Your task to perform on an android device: Look up the best rated bike on Walmart Image 0: 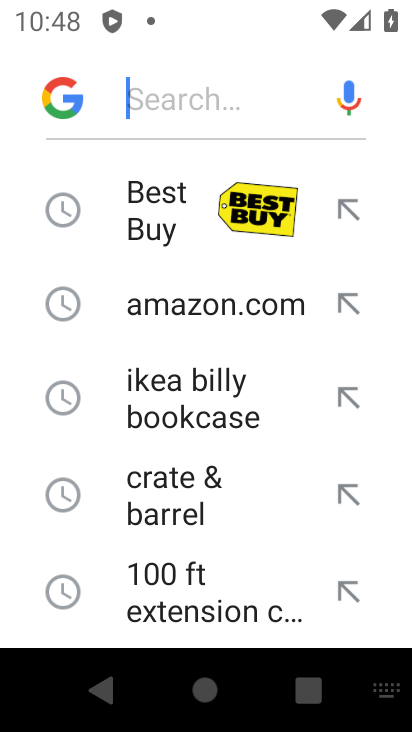
Step 0: press home button
Your task to perform on an android device: Look up the best rated bike on Walmart Image 1: 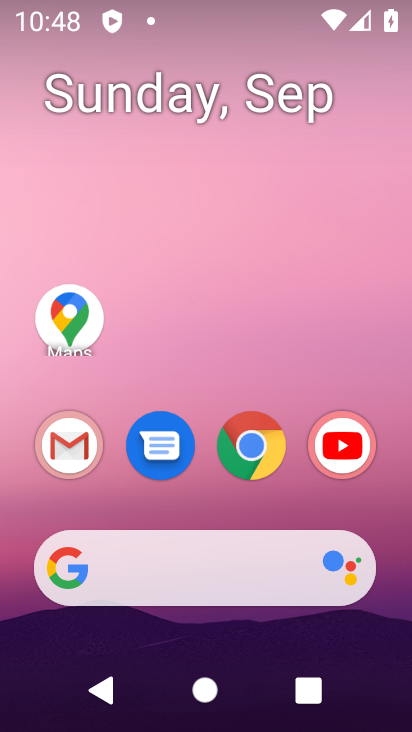
Step 1: drag from (224, 326) to (251, 197)
Your task to perform on an android device: Look up the best rated bike on Walmart Image 2: 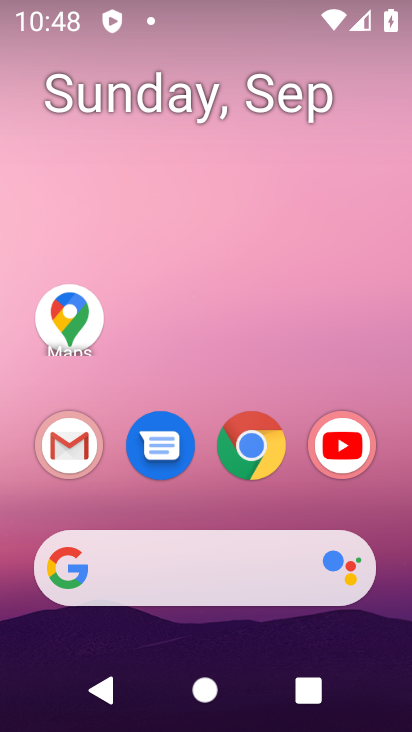
Step 2: drag from (220, 587) to (287, 148)
Your task to perform on an android device: Look up the best rated bike on Walmart Image 3: 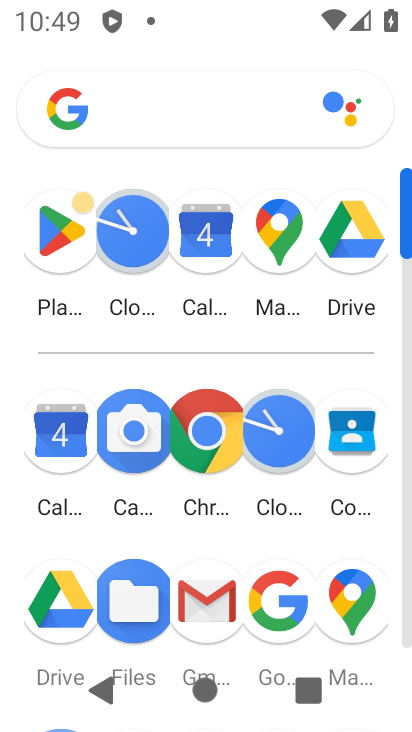
Step 3: click (217, 411)
Your task to perform on an android device: Look up the best rated bike on Walmart Image 4: 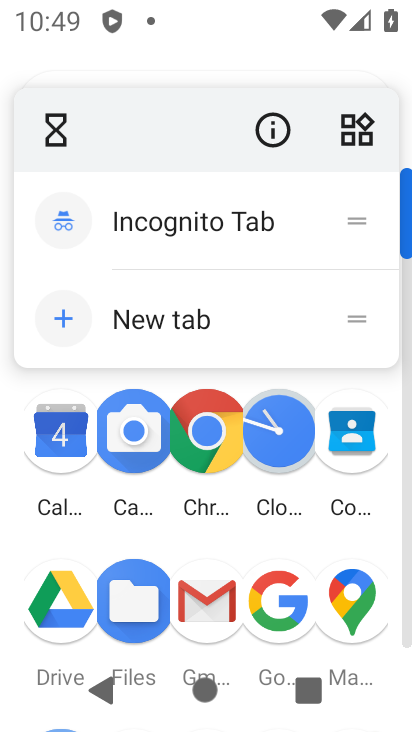
Step 4: click (202, 429)
Your task to perform on an android device: Look up the best rated bike on Walmart Image 5: 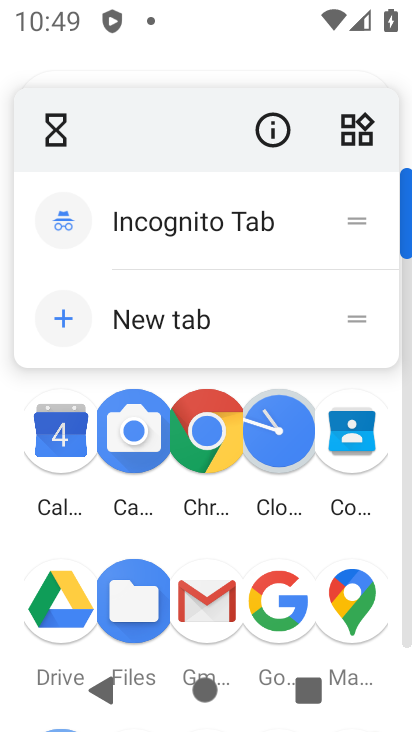
Step 5: click (202, 427)
Your task to perform on an android device: Look up the best rated bike on Walmart Image 6: 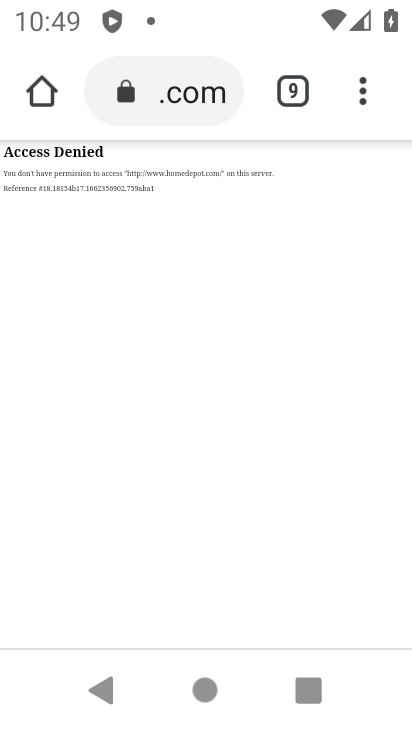
Step 6: click (176, 91)
Your task to perform on an android device: Look up the best rated bike on Walmart Image 7: 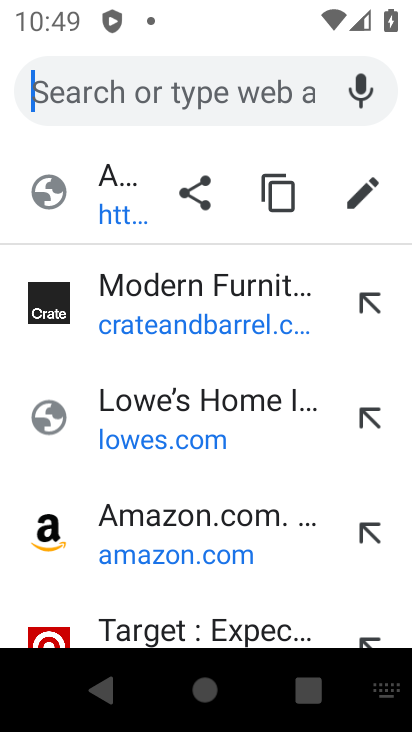
Step 7: click (155, 86)
Your task to perform on an android device: Look up the best rated bike on Walmart Image 8: 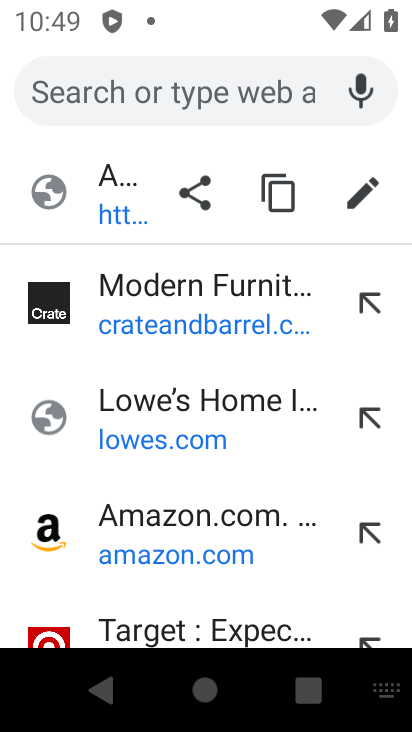
Step 8: type "Walmart"
Your task to perform on an android device: Look up the best rated bike on Walmart Image 9: 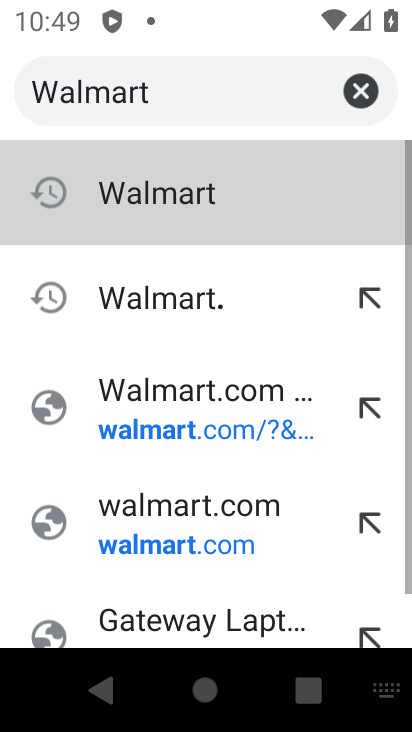
Step 9: press enter
Your task to perform on an android device: Look up the best rated bike on Walmart Image 10: 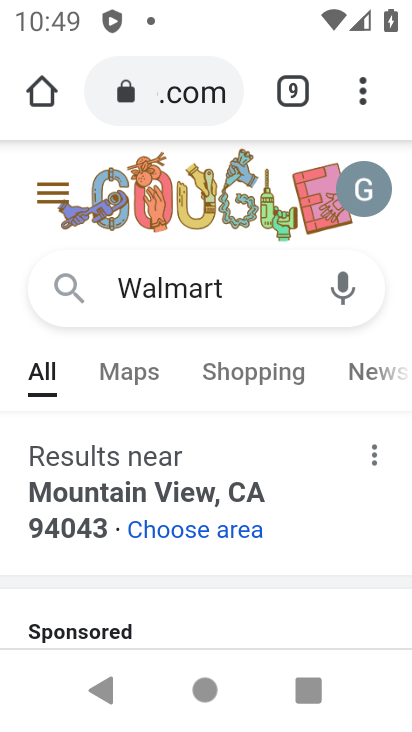
Step 10: click (245, 243)
Your task to perform on an android device: Look up the best rated bike on Walmart Image 11: 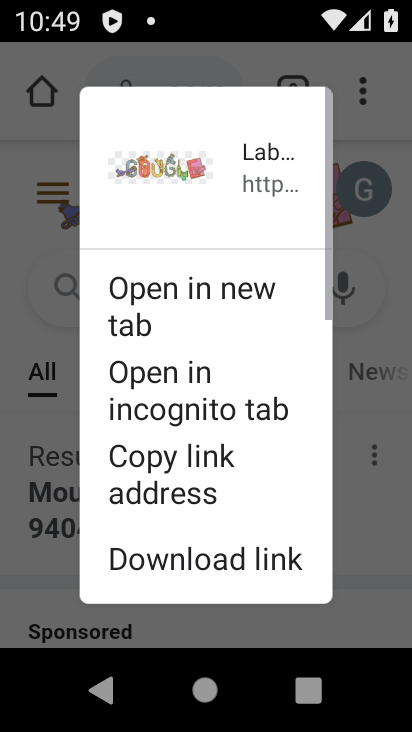
Step 11: drag from (232, 579) to (259, 268)
Your task to perform on an android device: Look up the best rated bike on Walmart Image 12: 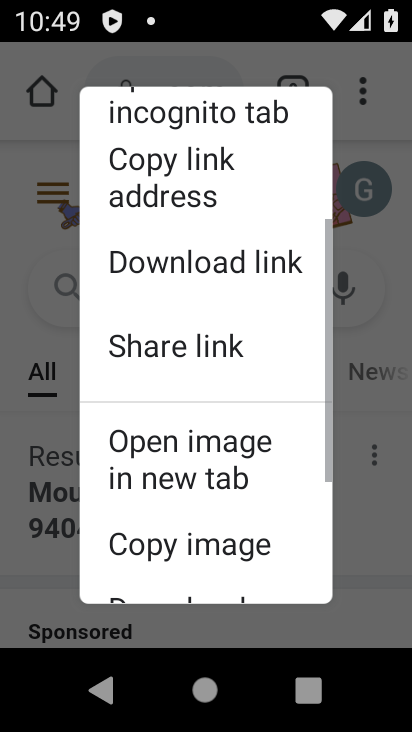
Step 12: click (355, 361)
Your task to perform on an android device: Look up the best rated bike on Walmart Image 13: 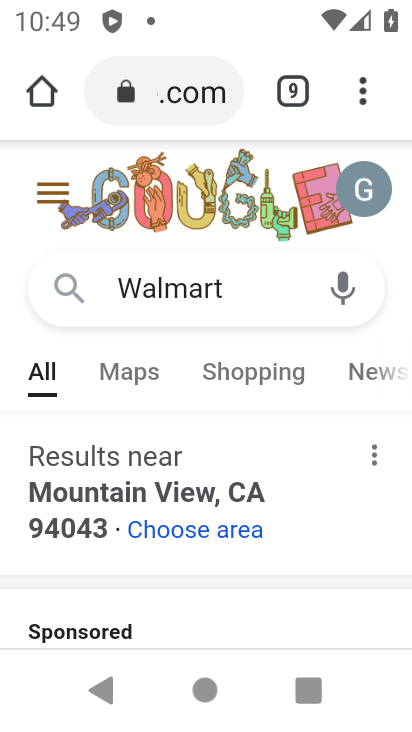
Step 13: drag from (271, 576) to (326, 254)
Your task to perform on an android device: Look up the best rated bike on Walmart Image 14: 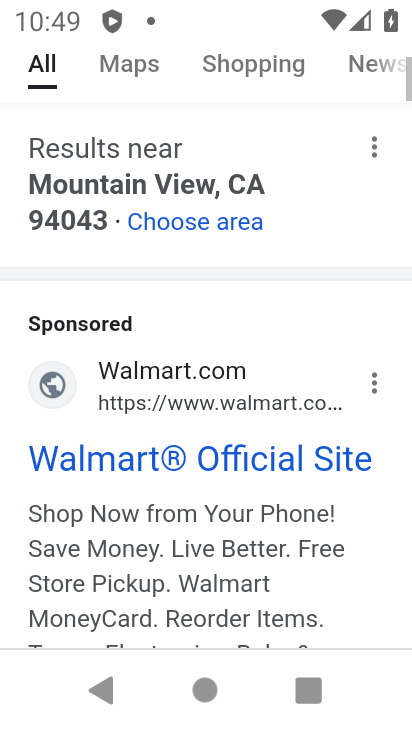
Step 14: drag from (229, 447) to (256, 342)
Your task to perform on an android device: Look up the best rated bike on Walmart Image 15: 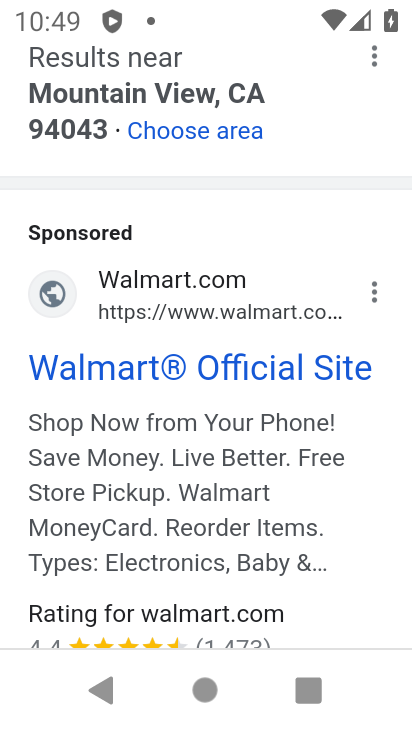
Step 15: click (219, 311)
Your task to perform on an android device: Look up the best rated bike on Walmart Image 16: 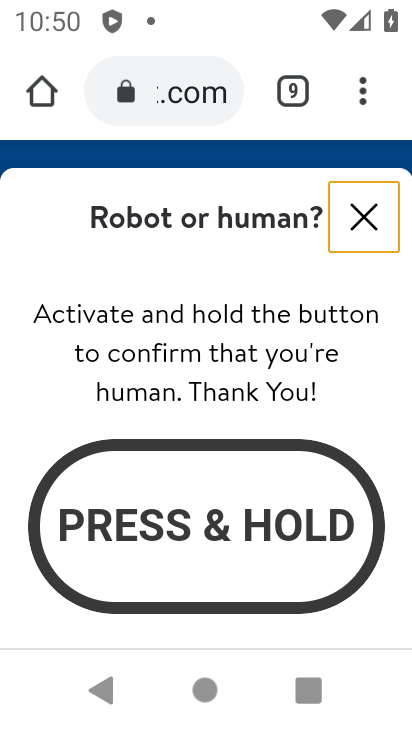
Step 16: click (240, 406)
Your task to perform on an android device: Look up the best rated bike on Walmart Image 17: 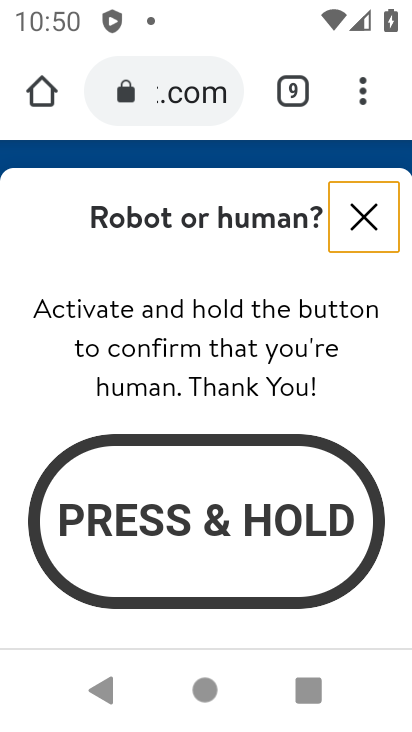
Step 17: click (204, 540)
Your task to perform on an android device: Look up the best rated bike on Walmart Image 18: 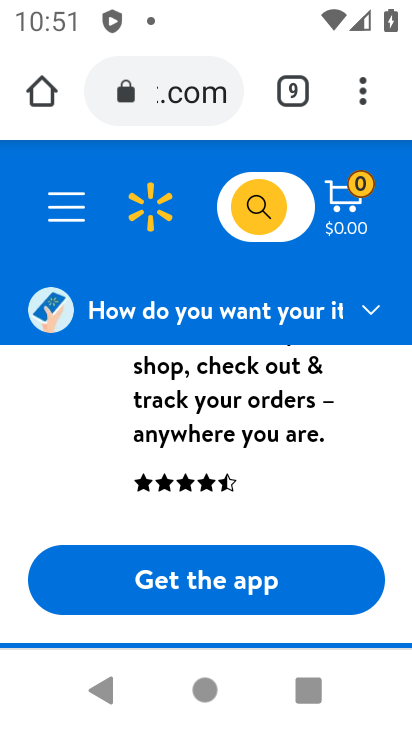
Step 18: drag from (351, 319) to (368, 276)
Your task to perform on an android device: Look up the best rated bike on Walmart Image 19: 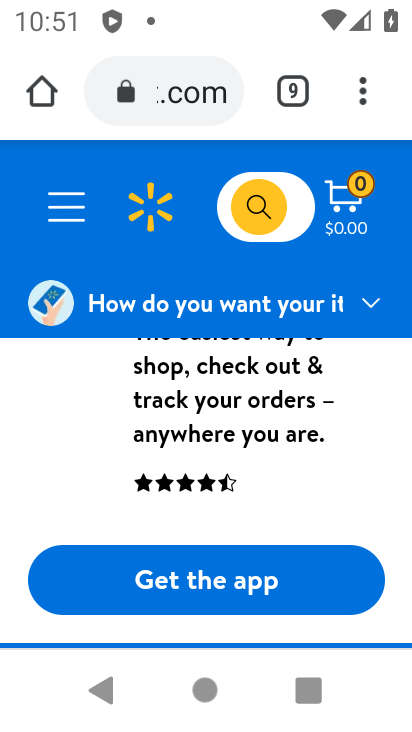
Step 19: click (297, 149)
Your task to perform on an android device: Look up the best rated bike on Walmart Image 20: 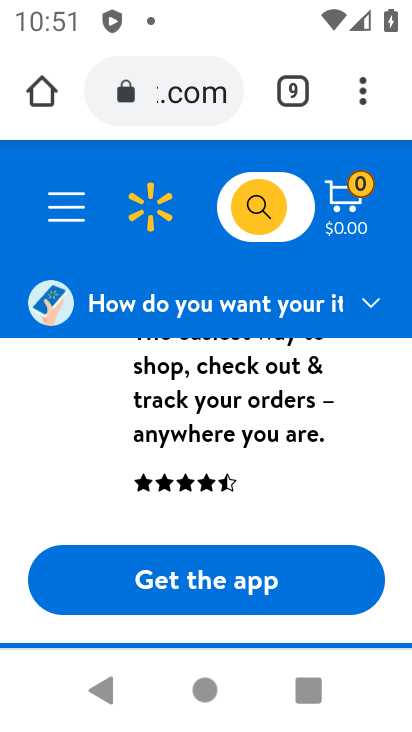
Step 20: click (227, 197)
Your task to perform on an android device: Look up the best rated bike on Walmart Image 21: 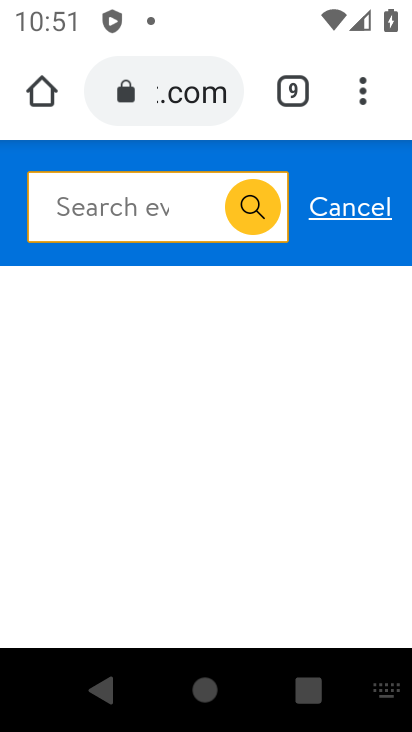
Step 21: press enter
Your task to perform on an android device: Look up the best rated bike on Walmart Image 22: 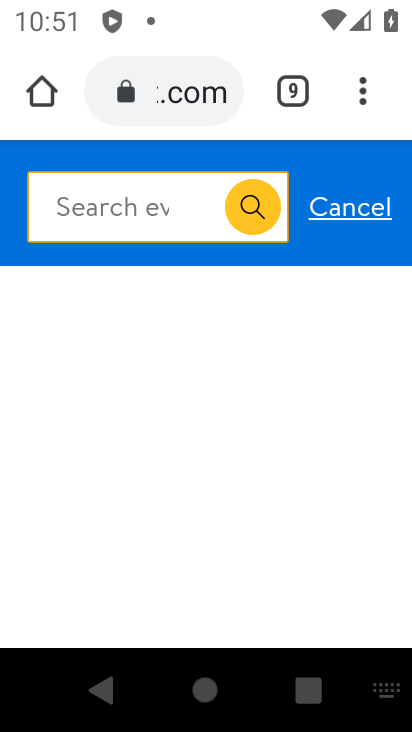
Step 22: type "best rated bike "
Your task to perform on an android device: Look up the best rated bike on Walmart Image 23: 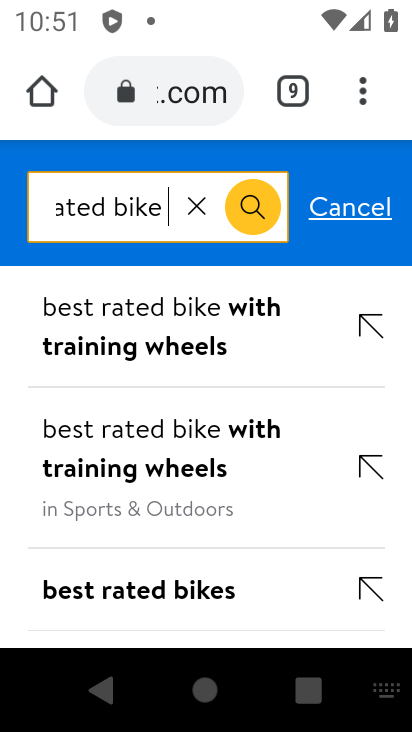
Step 23: press enter
Your task to perform on an android device: Look up the best rated bike on Walmart Image 24: 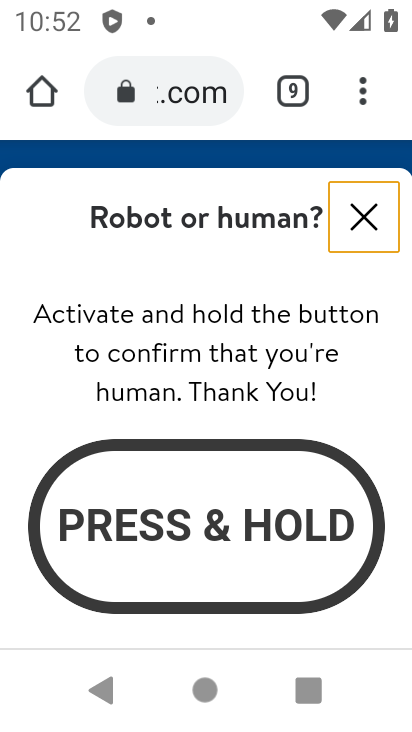
Step 24: task complete